Your task to perform on an android device: Open settings on Google Maps Image 0: 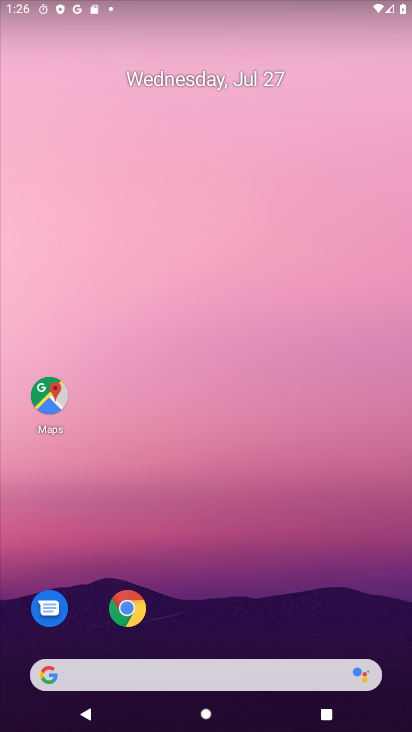
Step 0: click (45, 389)
Your task to perform on an android device: Open settings on Google Maps Image 1: 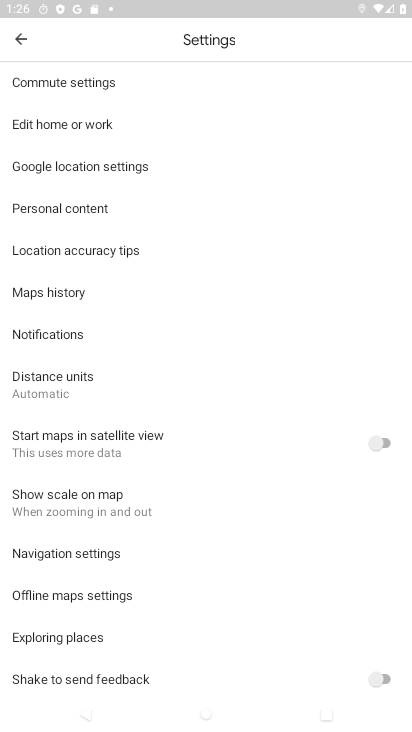
Step 1: task complete